Your task to perform on an android device: Check the news Image 0: 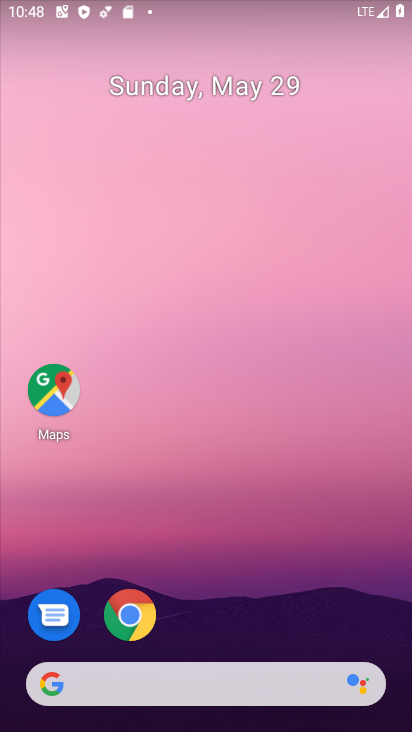
Step 0: drag from (1, 245) to (395, 311)
Your task to perform on an android device: Check the news Image 1: 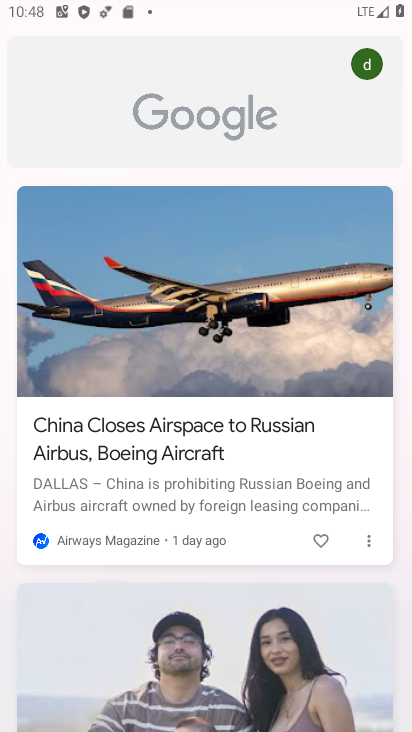
Step 1: task complete